Your task to perform on an android device: check out phone information Image 0: 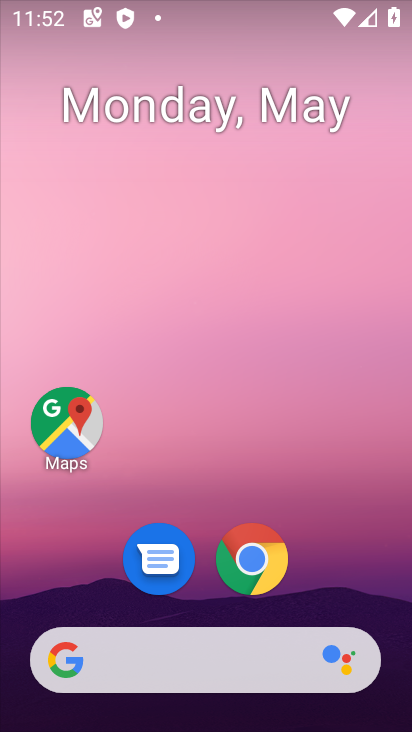
Step 0: drag from (382, 592) to (251, 71)
Your task to perform on an android device: check out phone information Image 1: 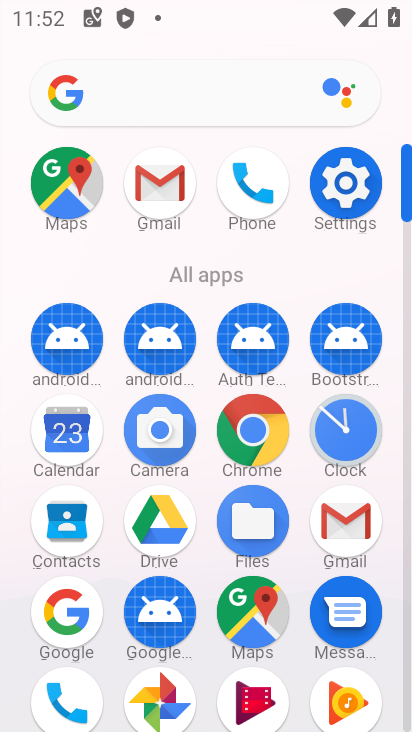
Step 1: click (321, 155)
Your task to perform on an android device: check out phone information Image 2: 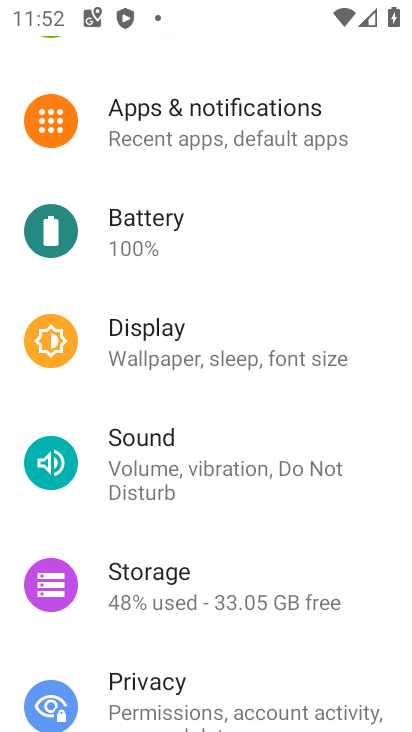
Step 2: task complete